Your task to perform on an android device: visit the assistant section in the google photos Image 0: 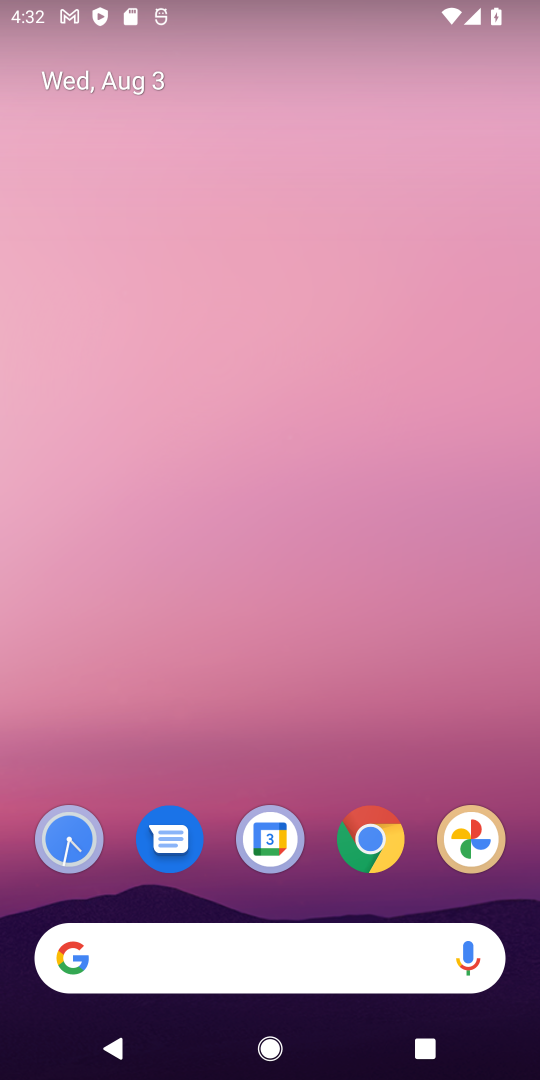
Step 0: click (480, 825)
Your task to perform on an android device: visit the assistant section in the google photos Image 1: 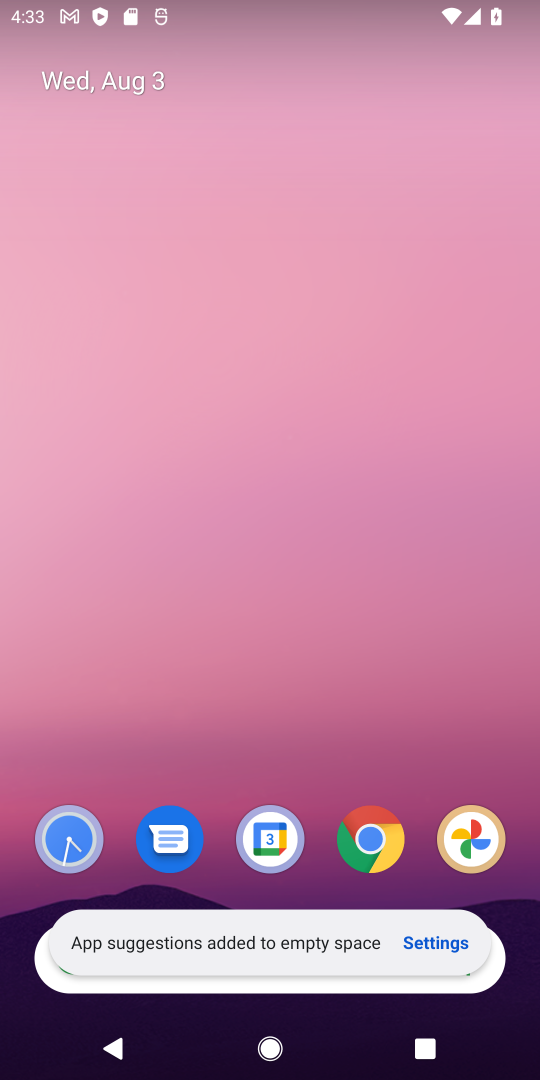
Step 1: click (475, 832)
Your task to perform on an android device: visit the assistant section in the google photos Image 2: 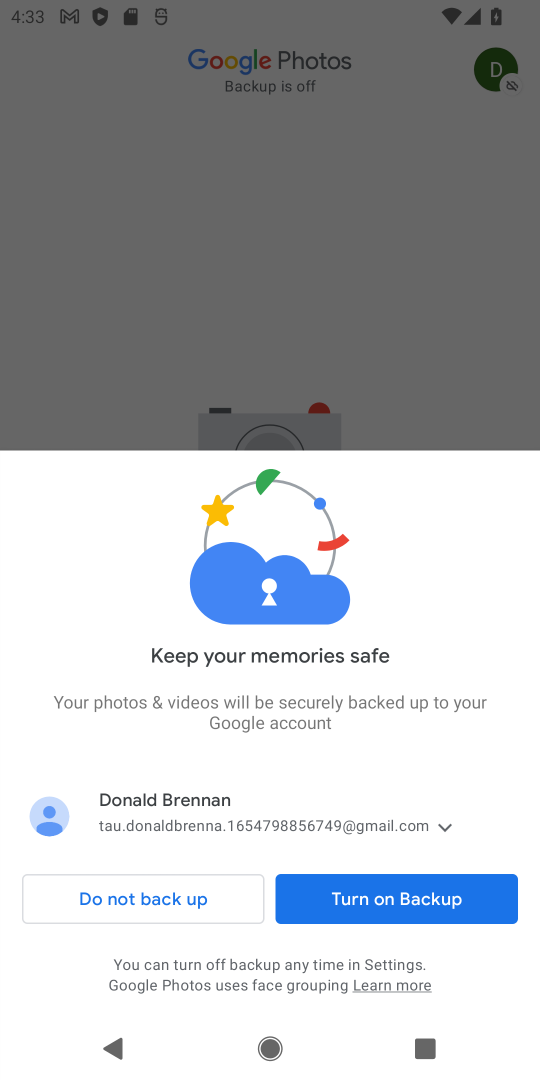
Step 2: click (166, 906)
Your task to perform on an android device: visit the assistant section in the google photos Image 3: 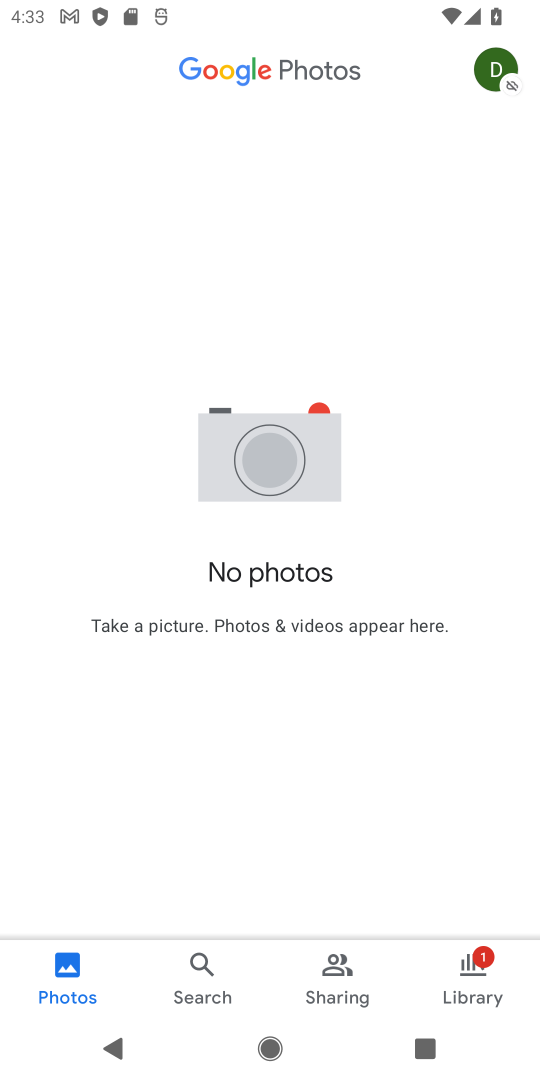
Step 3: task complete